Your task to perform on an android device: Go to internet settings Image 0: 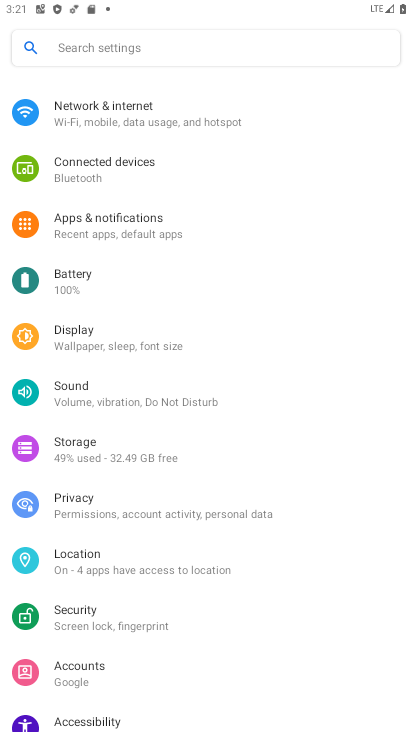
Step 0: drag from (287, 617) to (229, 134)
Your task to perform on an android device: Go to internet settings Image 1: 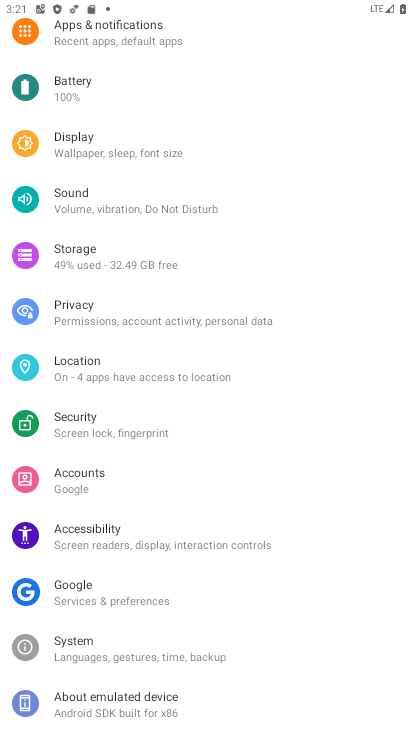
Step 1: drag from (326, 75) to (328, 681)
Your task to perform on an android device: Go to internet settings Image 2: 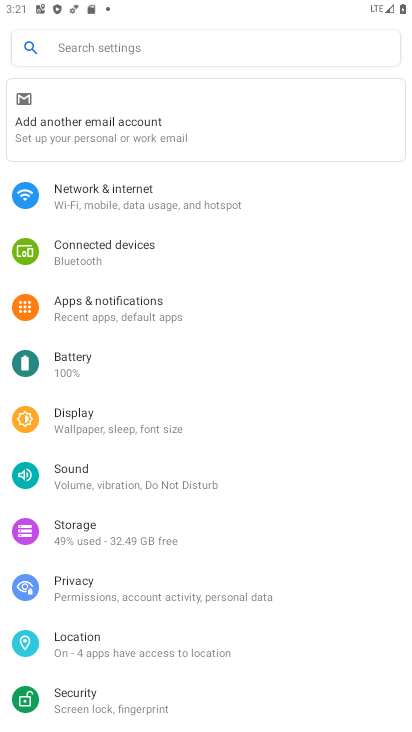
Step 2: click (260, 211)
Your task to perform on an android device: Go to internet settings Image 3: 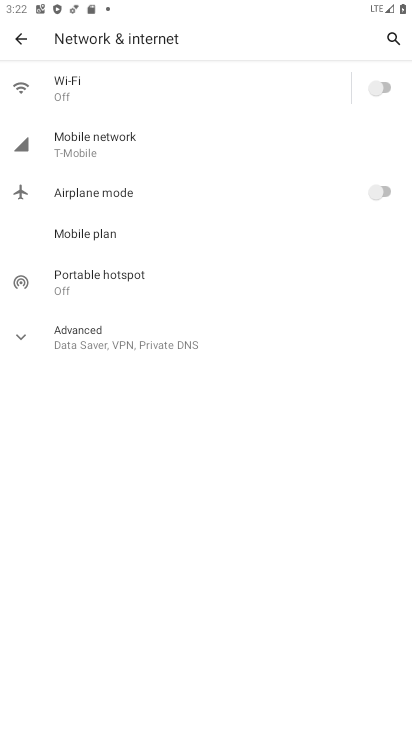
Step 3: task complete